Your task to perform on an android device: toggle show notifications on the lock screen Image 0: 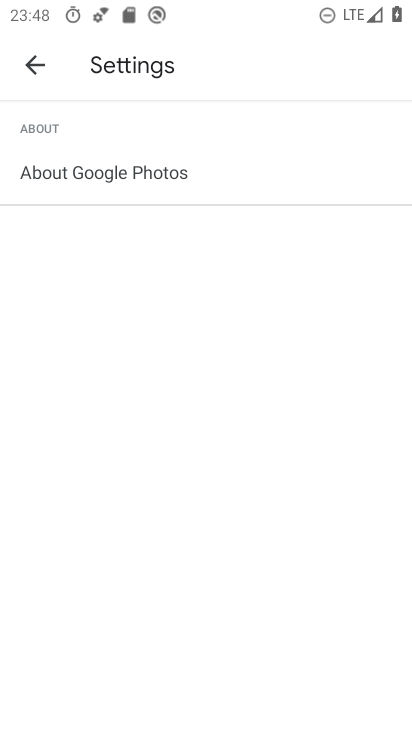
Step 0: press home button
Your task to perform on an android device: toggle show notifications on the lock screen Image 1: 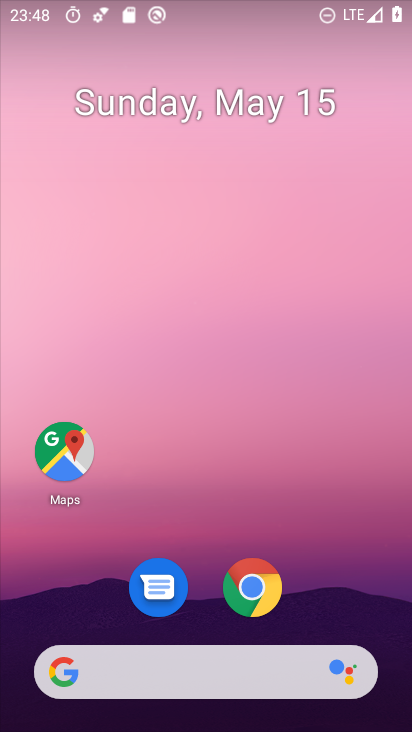
Step 1: drag from (202, 612) to (247, 254)
Your task to perform on an android device: toggle show notifications on the lock screen Image 2: 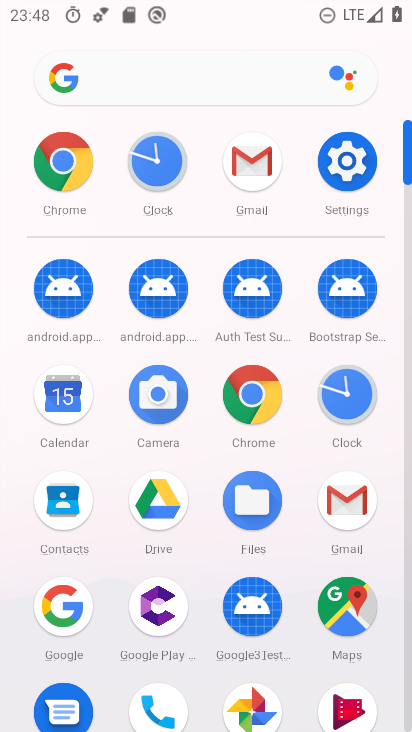
Step 2: click (335, 178)
Your task to perform on an android device: toggle show notifications on the lock screen Image 3: 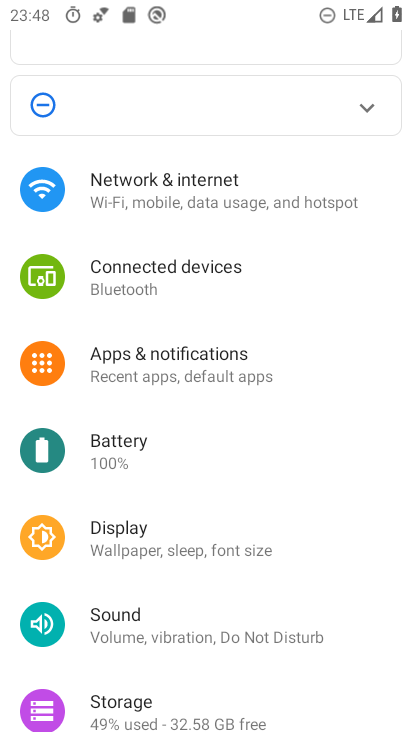
Step 3: drag from (194, 602) to (192, 402)
Your task to perform on an android device: toggle show notifications on the lock screen Image 4: 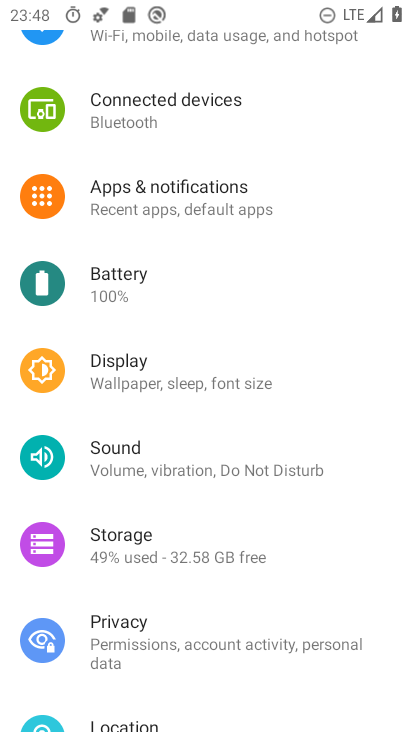
Step 4: click (181, 213)
Your task to perform on an android device: toggle show notifications on the lock screen Image 5: 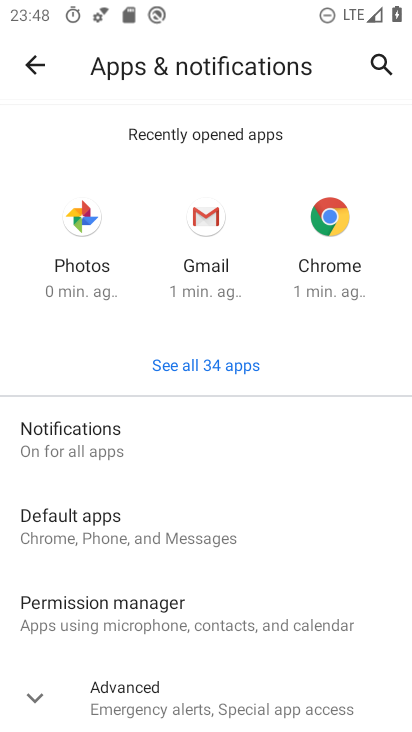
Step 5: click (160, 438)
Your task to perform on an android device: toggle show notifications on the lock screen Image 6: 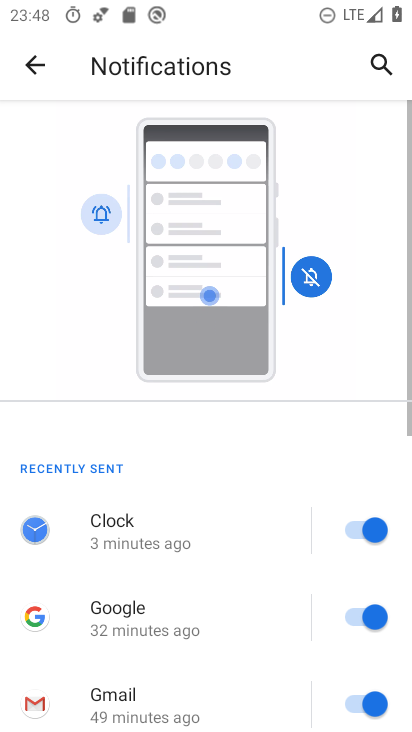
Step 6: drag from (205, 652) to (250, 283)
Your task to perform on an android device: toggle show notifications on the lock screen Image 7: 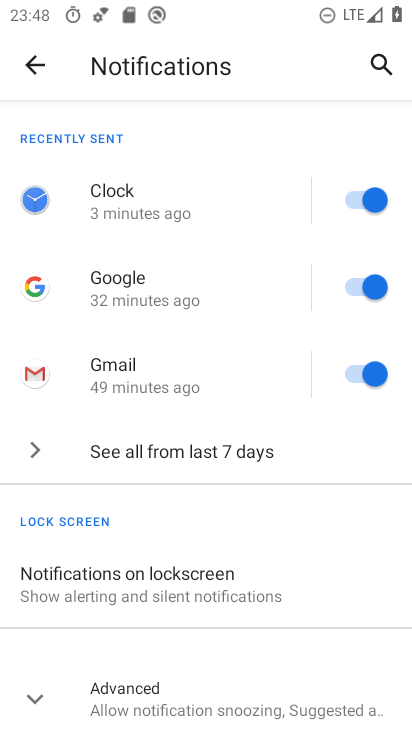
Step 7: click (170, 590)
Your task to perform on an android device: toggle show notifications on the lock screen Image 8: 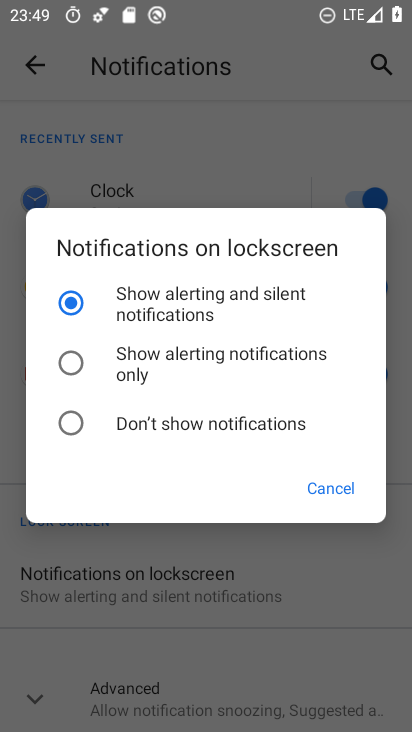
Step 8: click (131, 427)
Your task to perform on an android device: toggle show notifications on the lock screen Image 9: 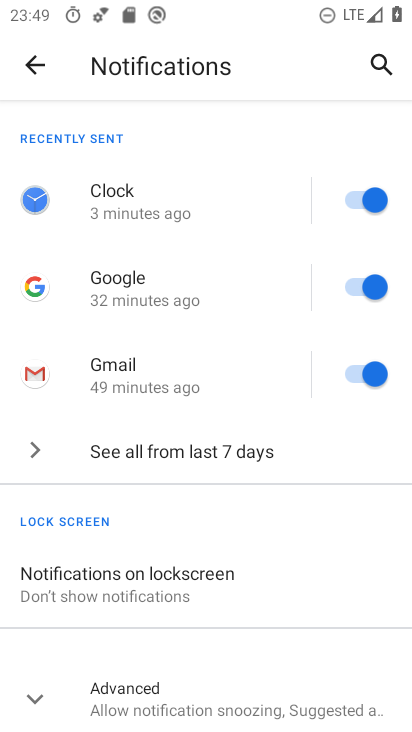
Step 9: task complete